Your task to perform on an android device: turn off location history Image 0: 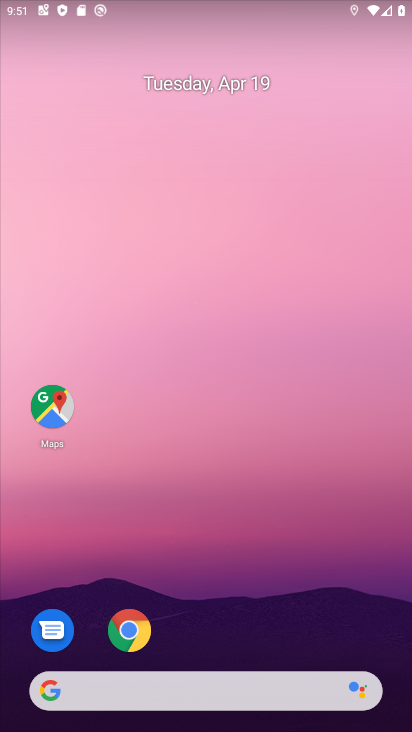
Step 0: press home button
Your task to perform on an android device: turn off location history Image 1: 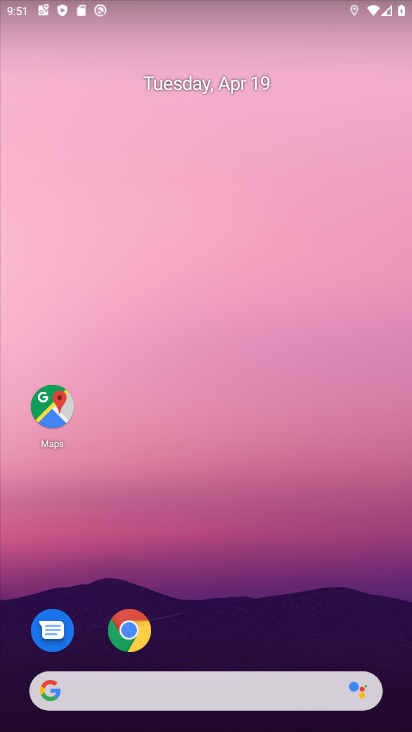
Step 1: drag from (243, 361) to (199, 111)
Your task to perform on an android device: turn off location history Image 2: 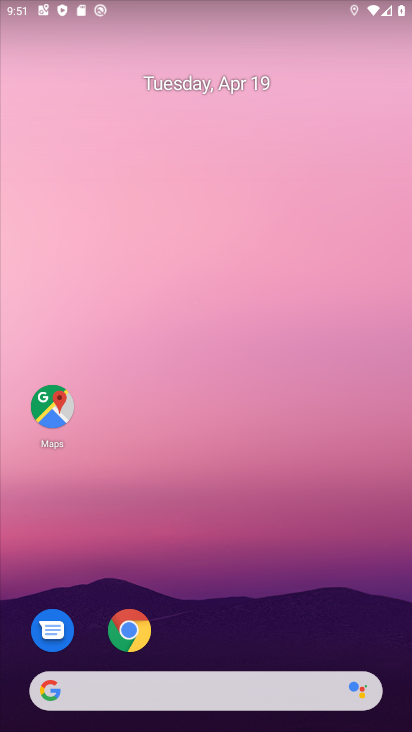
Step 2: drag from (274, 656) to (73, 56)
Your task to perform on an android device: turn off location history Image 3: 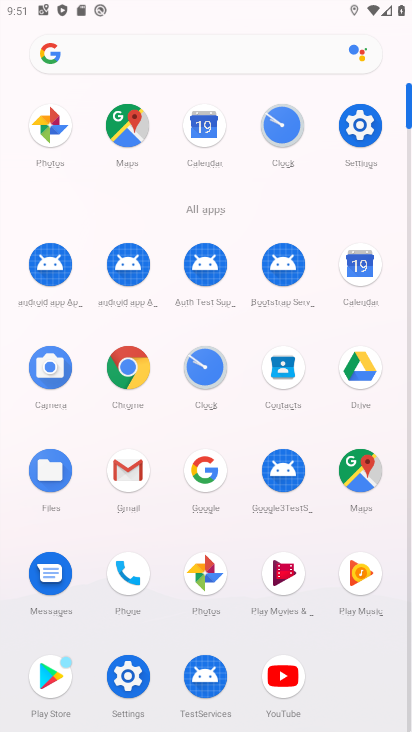
Step 3: click (361, 162)
Your task to perform on an android device: turn off location history Image 4: 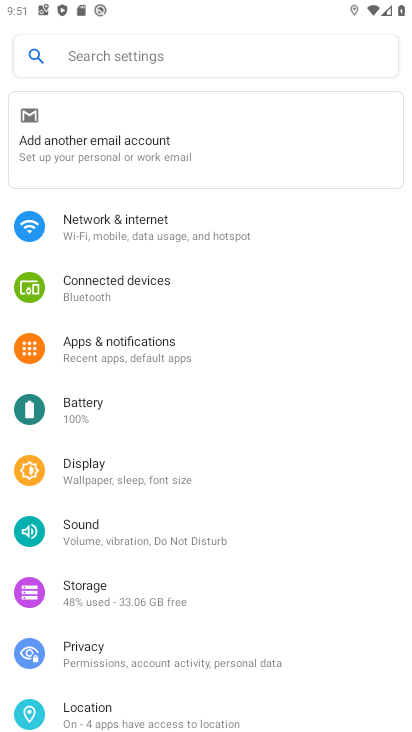
Step 4: click (144, 709)
Your task to perform on an android device: turn off location history Image 5: 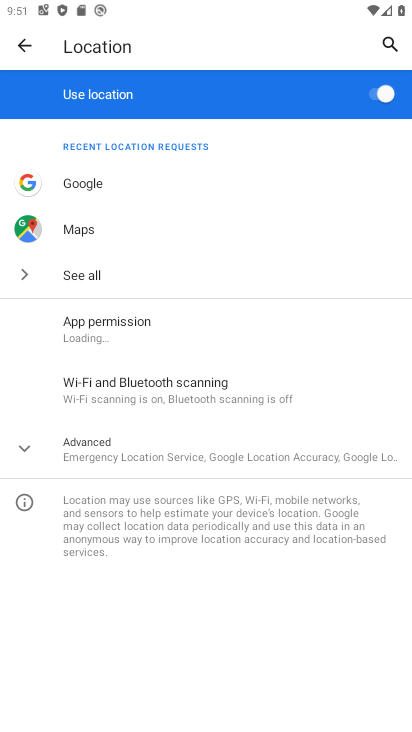
Step 5: click (119, 445)
Your task to perform on an android device: turn off location history Image 6: 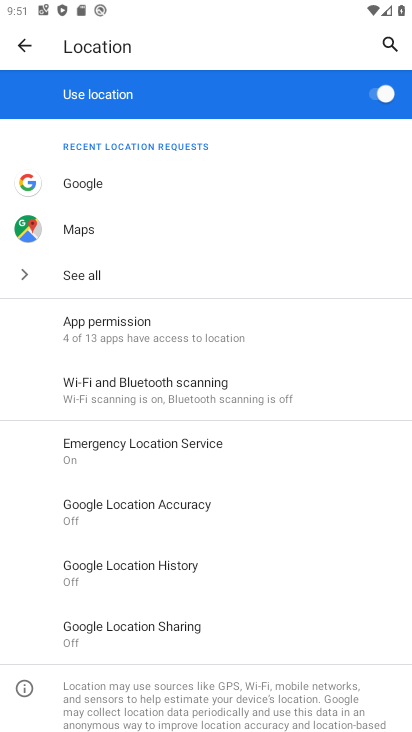
Step 6: task complete